Your task to perform on an android device: Go to privacy settings Image 0: 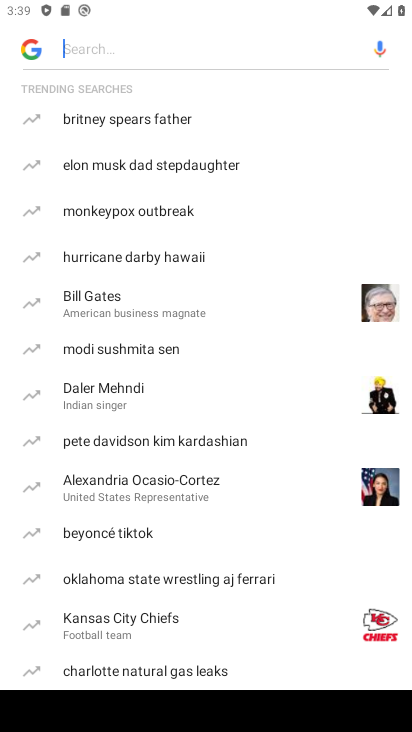
Step 0: press back button
Your task to perform on an android device: Go to privacy settings Image 1: 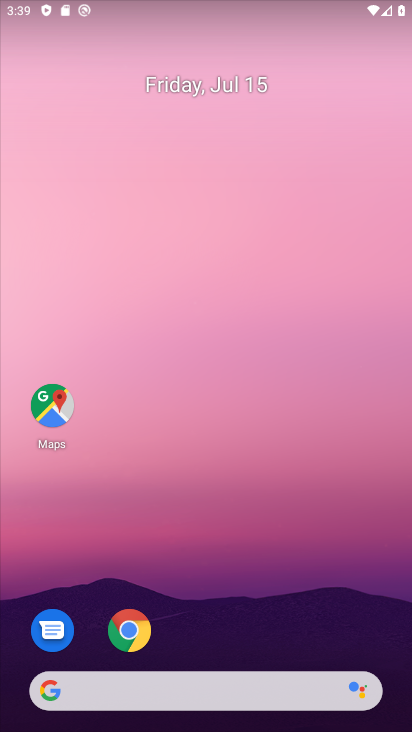
Step 1: drag from (198, 657) to (348, 65)
Your task to perform on an android device: Go to privacy settings Image 2: 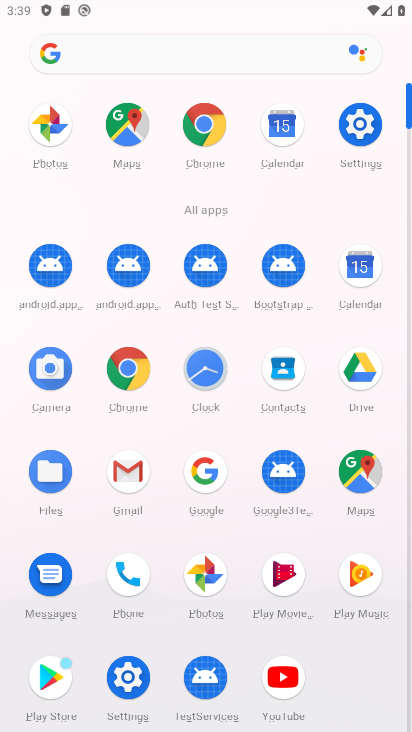
Step 2: click (128, 686)
Your task to perform on an android device: Go to privacy settings Image 3: 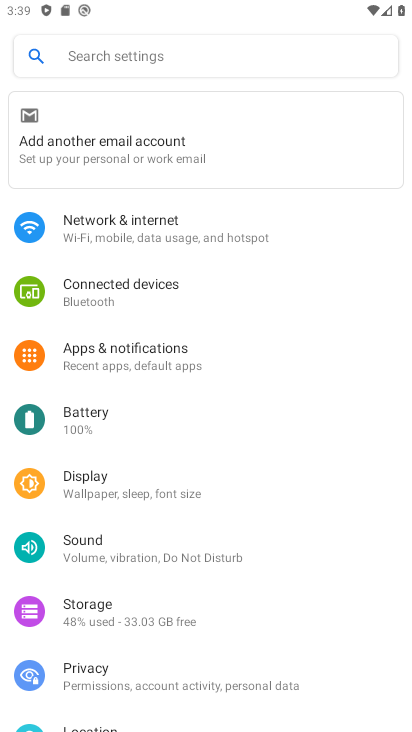
Step 3: click (129, 671)
Your task to perform on an android device: Go to privacy settings Image 4: 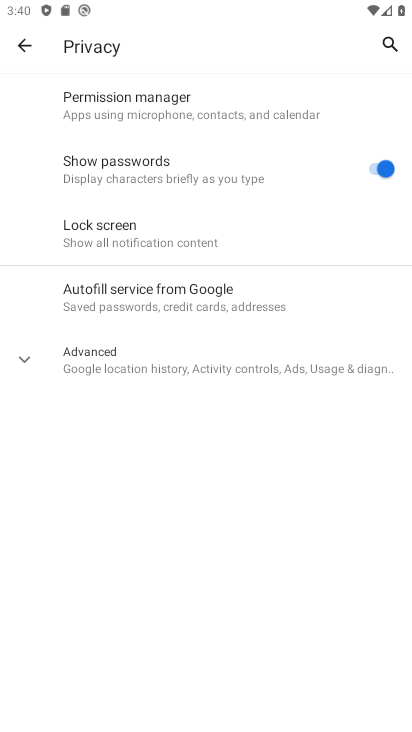
Step 4: task complete